Your task to perform on an android device: turn off data saver in the chrome app Image 0: 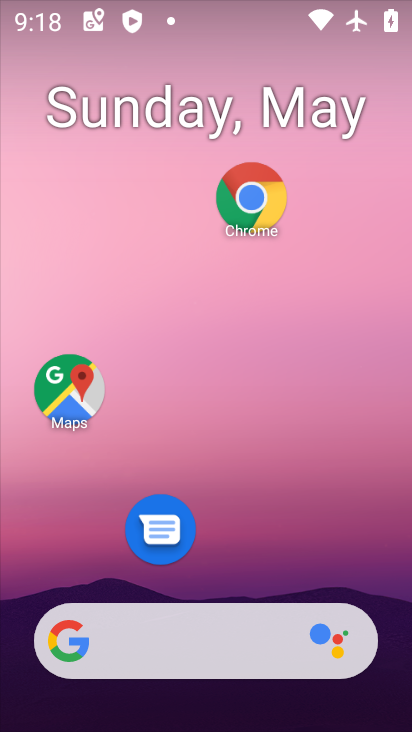
Step 0: click (250, 202)
Your task to perform on an android device: turn off data saver in the chrome app Image 1: 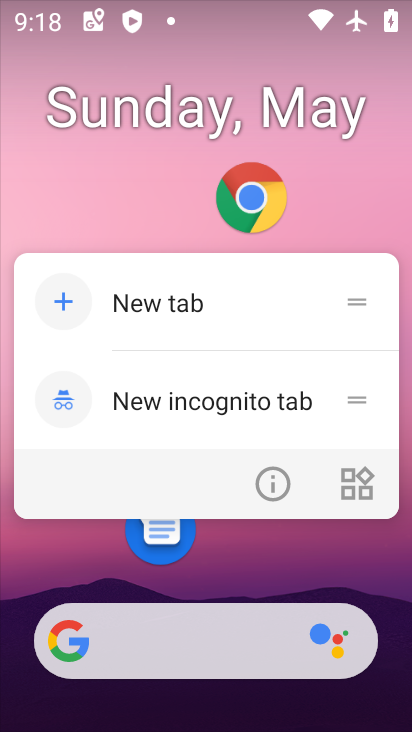
Step 1: click (259, 203)
Your task to perform on an android device: turn off data saver in the chrome app Image 2: 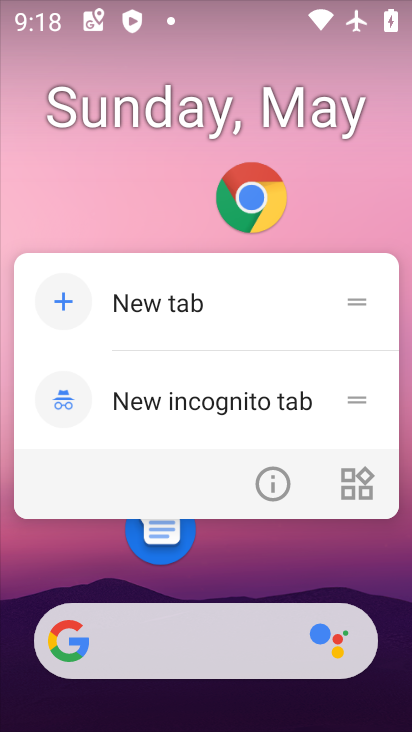
Step 2: click (260, 204)
Your task to perform on an android device: turn off data saver in the chrome app Image 3: 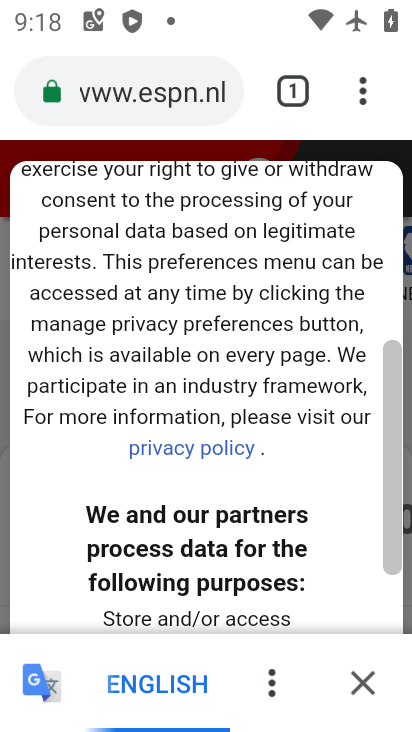
Step 3: click (366, 83)
Your task to perform on an android device: turn off data saver in the chrome app Image 4: 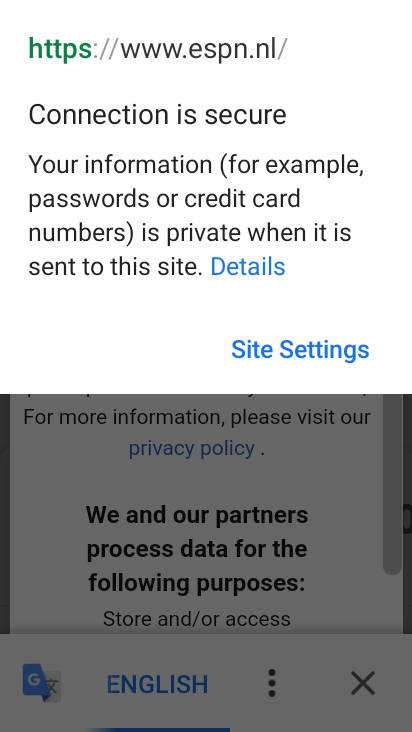
Step 4: click (177, 572)
Your task to perform on an android device: turn off data saver in the chrome app Image 5: 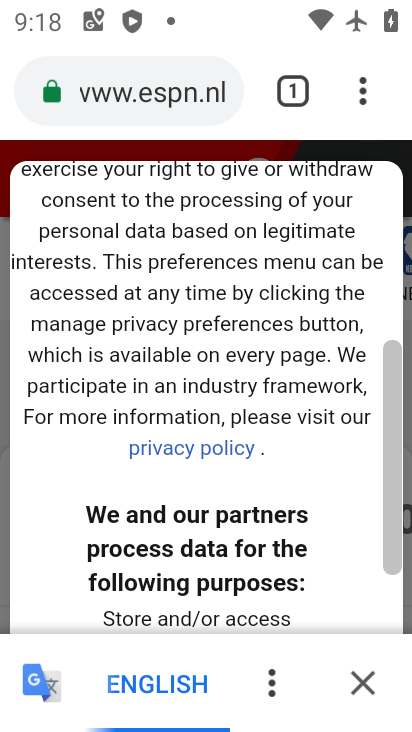
Step 5: click (361, 89)
Your task to perform on an android device: turn off data saver in the chrome app Image 6: 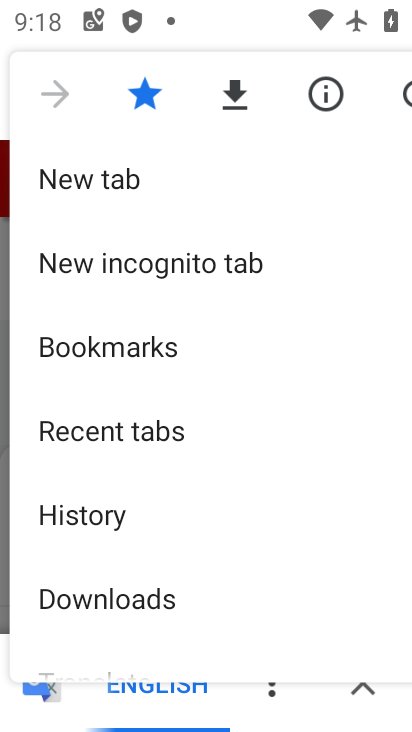
Step 6: drag from (135, 577) to (86, 233)
Your task to perform on an android device: turn off data saver in the chrome app Image 7: 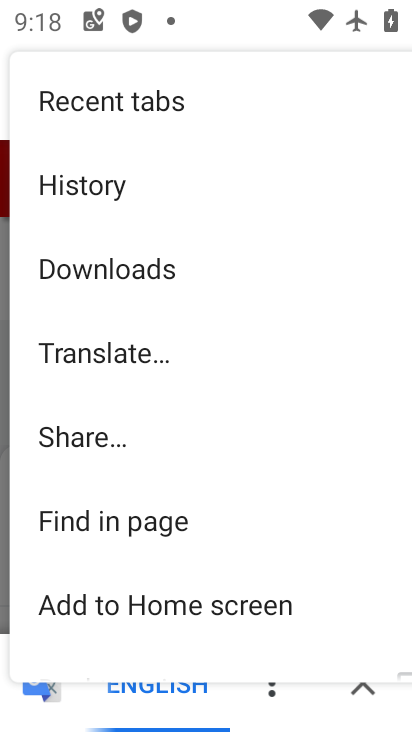
Step 7: drag from (106, 608) to (71, 344)
Your task to perform on an android device: turn off data saver in the chrome app Image 8: 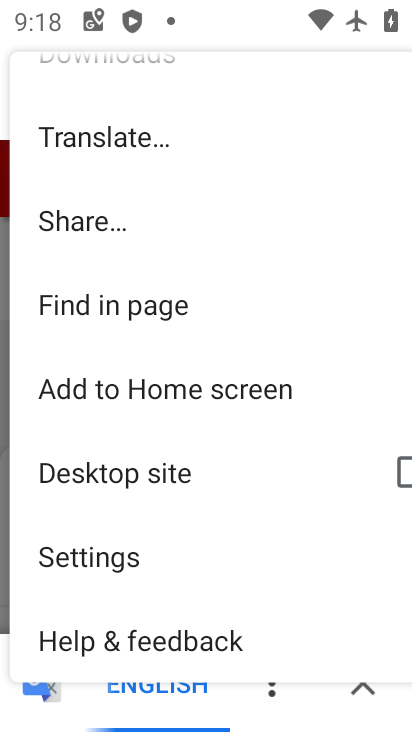
Step 8: click (115, 553)
Your task to perform on an android device: turn off data saver in the chrome app Image 9: 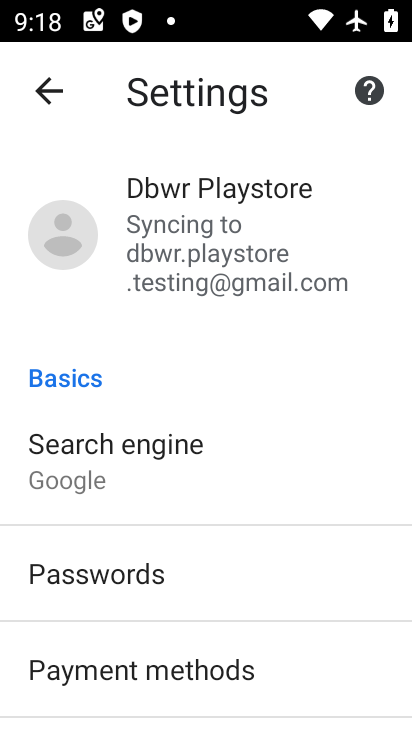
Step 9: drag from (168, 678) to (150, 335)
Your task to perform on an android device: turn off data saver in the chrome app Image 10: 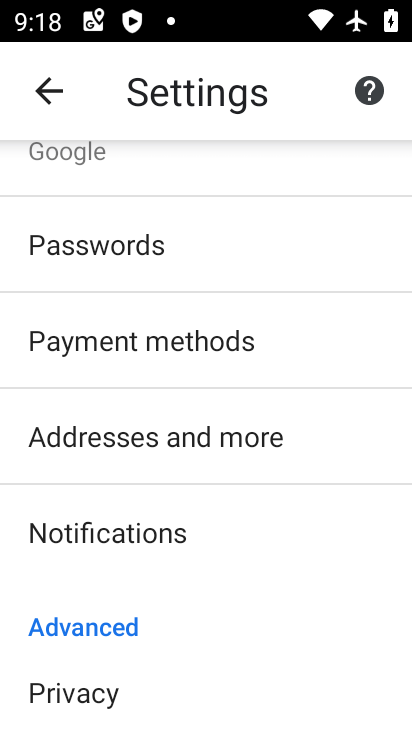
Step 10: drag from (155, 647) to (130, 335)
Your task to perform on an android device: turn off data saver in the chrome app Image 11: 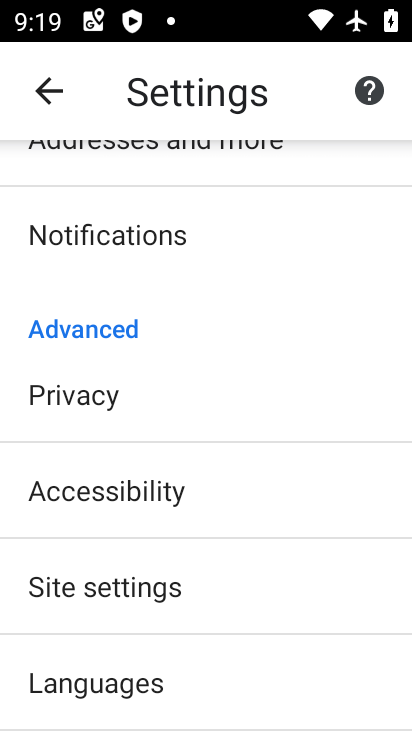
Step 11: drag from (208, 702) to (214, 495)
Your task to perform on an android device: turn off data saver in the chrome app Image 12: 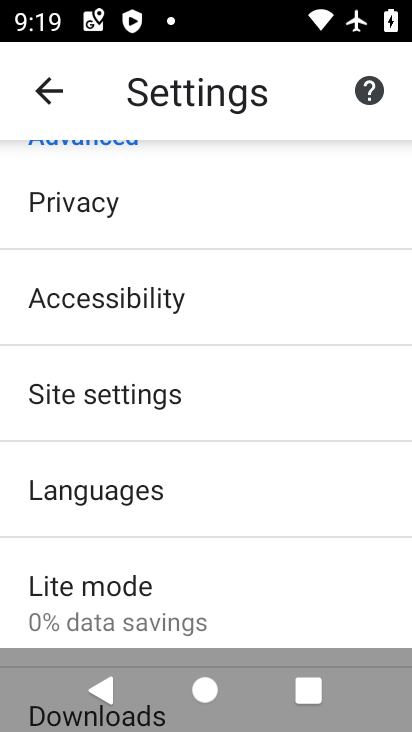
Step 12: click (158, 591)
Your task to perform on an android device: turn off data saver in the chrome app Image 13: 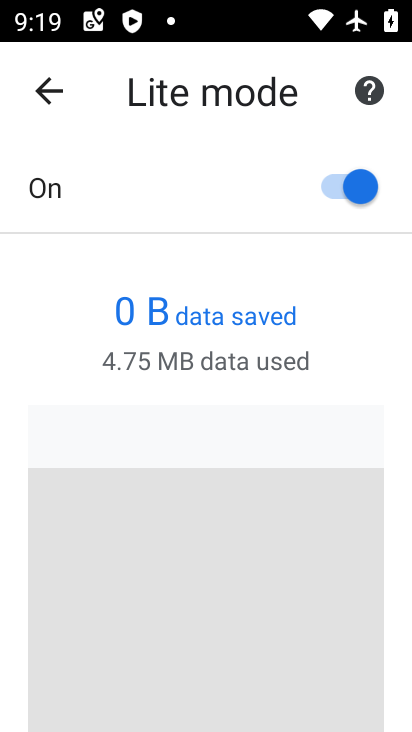
Step 13: click (332, 202)
Your task to perform on an android device: turn off data saver in the chrome app Image 14: 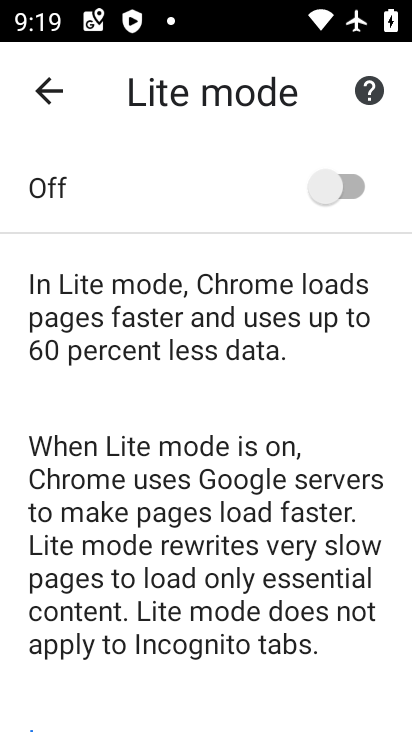
Step 14: task complete